Your task to perform on an android device: Open calendar and show me the second week of next month Image 0: 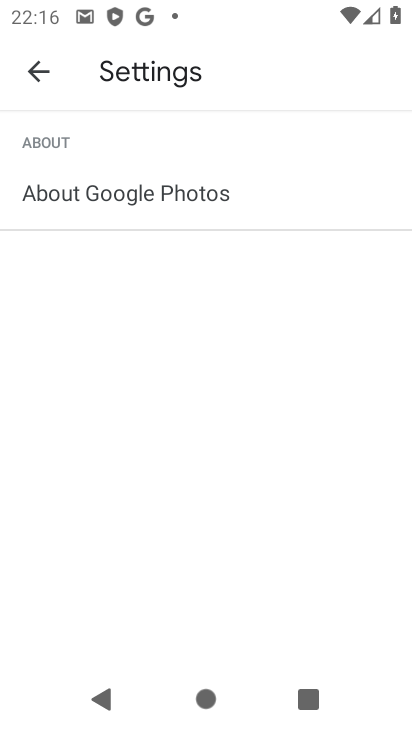
Step 0: press home button
Your task to perform on an android device: Open calendar and show me the second week of next month Image 1: 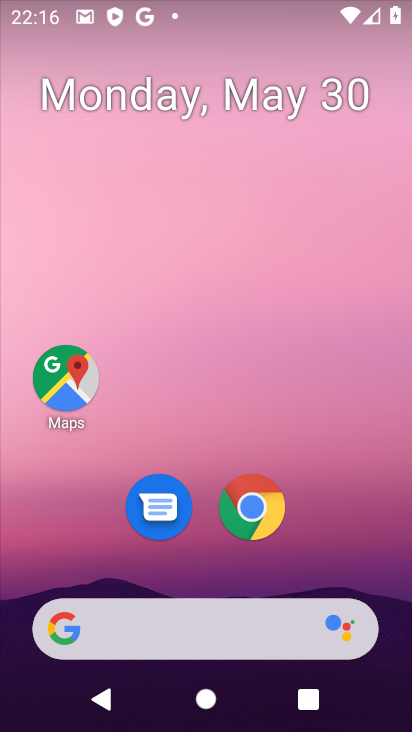
Step 1: drag from (356, 529) to (347, 118)
Your task to perform on an android device: Open calendar and show me the second week of next month Image 2: 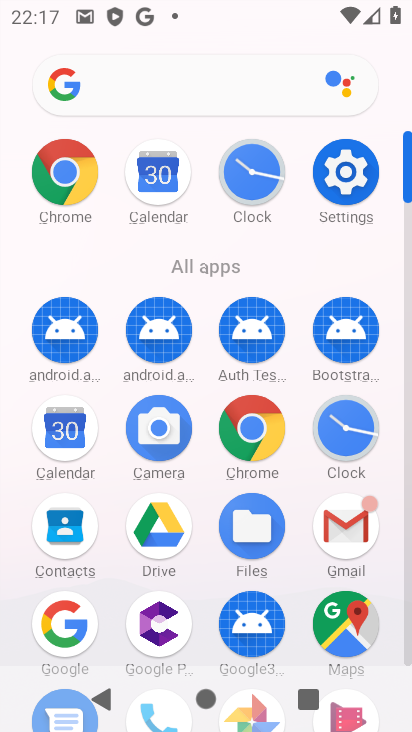
Step 2: click (58, 443)
Your task to perform on an android device: Open calendar and show me the second week of next month Image 3: 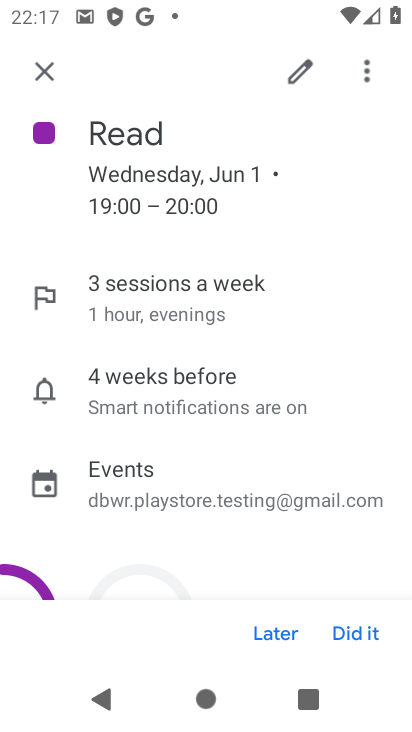
Step 3: click (49, 69)
Your task to perform on an android device: Open calendar and show me the second week of next month Image 4: 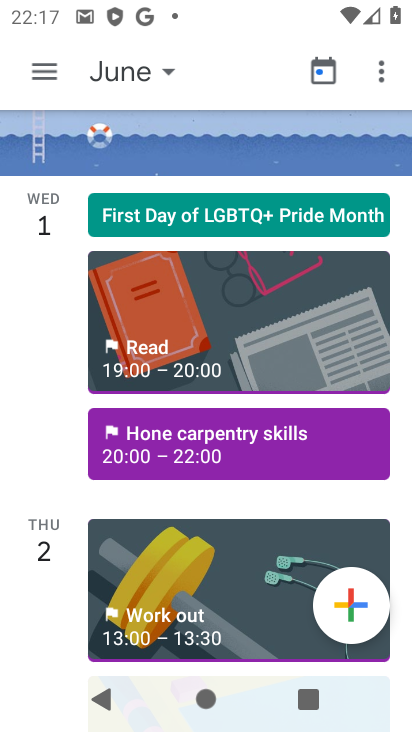
Step 4: click (162, 74)
Your task to perform on an android device: Open calendar and show me the second week of next month Image 5: 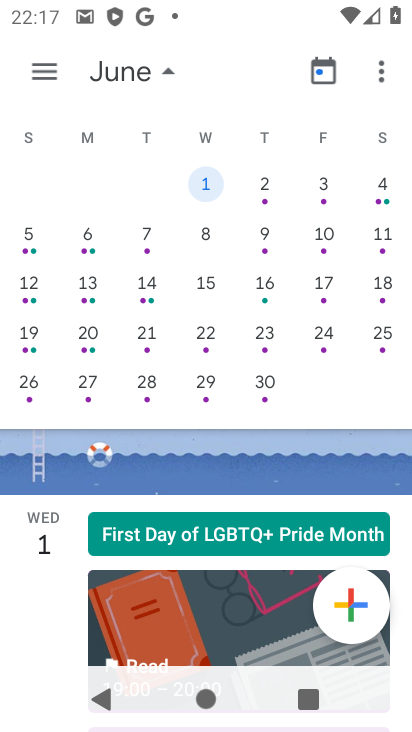
Step 5: click (86, 235)
Your task to perform on an android device: Open calendar and show me the second week of next month Image 6: 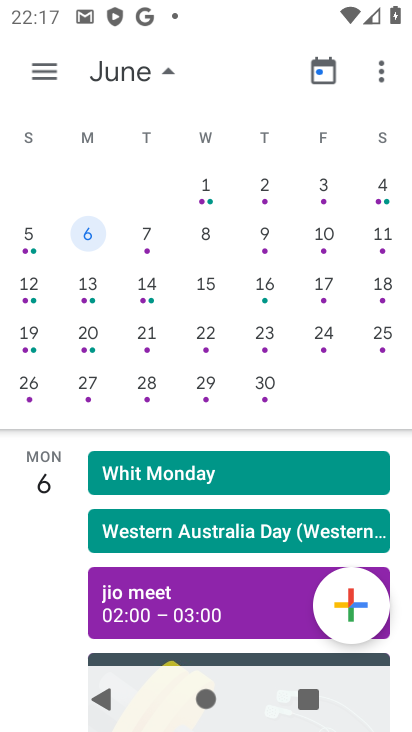
Step 6: task complete